Your task to perform on an android device: Go to eBay Image 0: 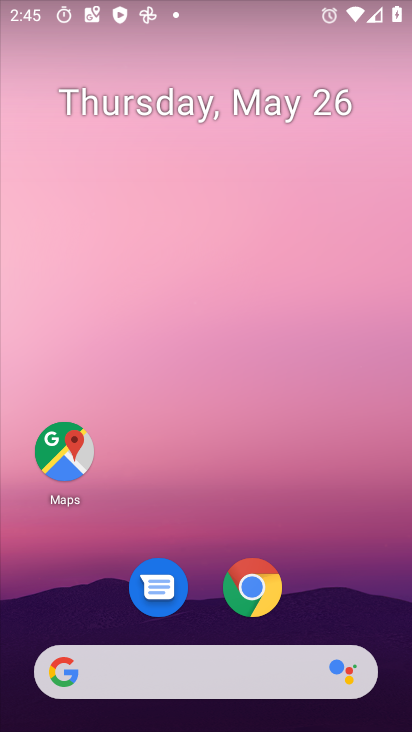
Step 0: drag from (363, 610) to (325, 255)
Your task to perform on an android device: Go to eBay Image 1: 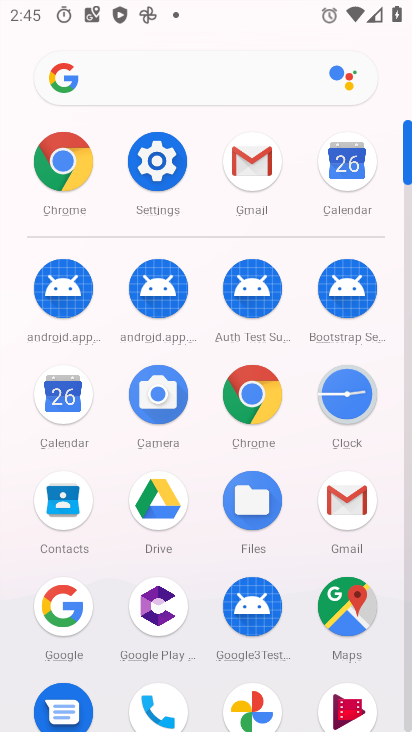
Step 1: click (264, 411)
Your task to perform on an android device: Go to eBay Image 2: 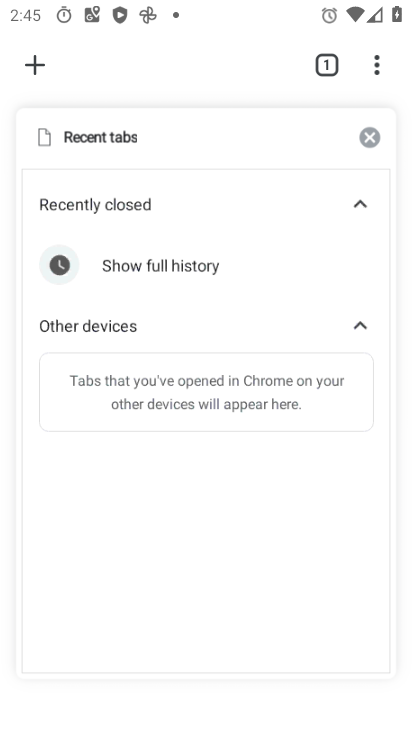
Step 2: press back button
Your task to perform on an android device: Go to eBay Image 3: 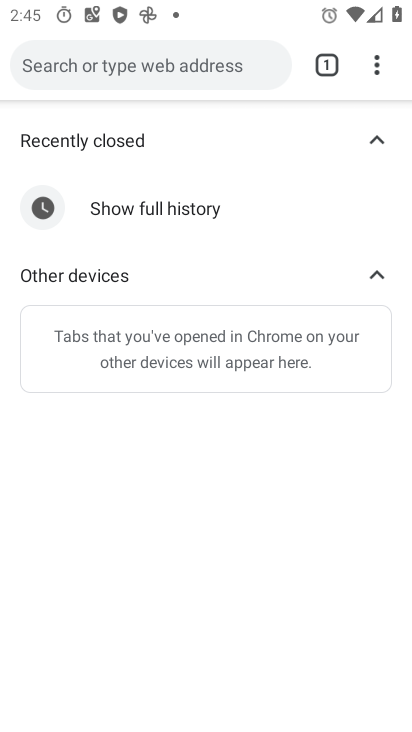
Step 3: click (216, 67)
Your task to perform on an android device: Go to eBay Image 4: 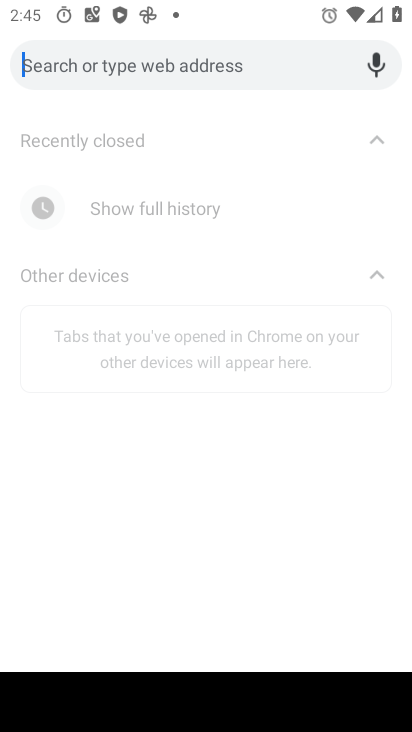
Step 4: type "ebay"
Your task to perform on an android device: Go to eBay Image 5: 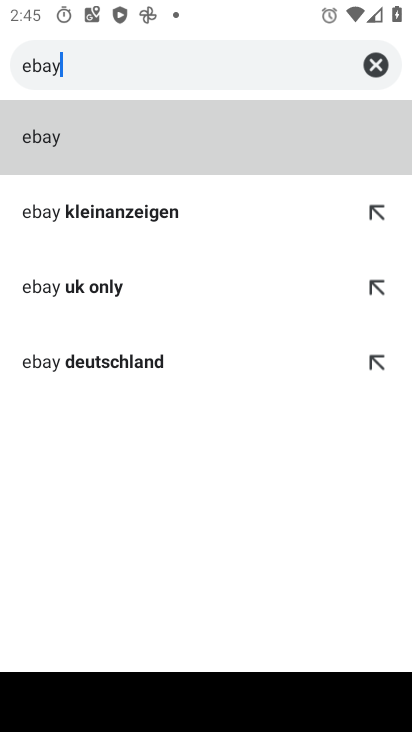
Step 5: click (95, 146)
Your task to perform on an android device: Go to eBay Image 6: 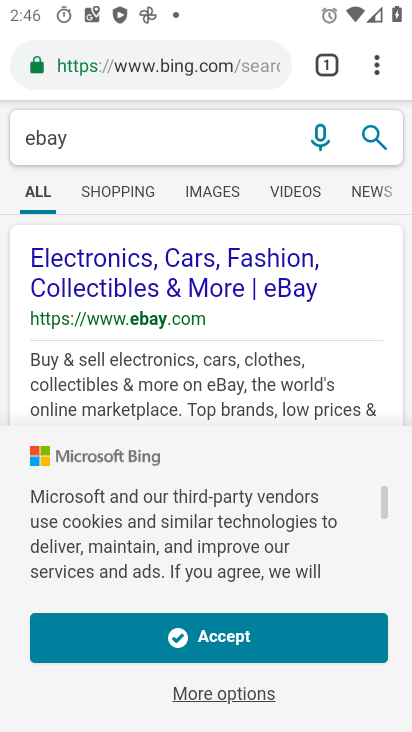
Step 6: task complete